Your task to perform on an android device: see creations saved in the google photos Image 0: 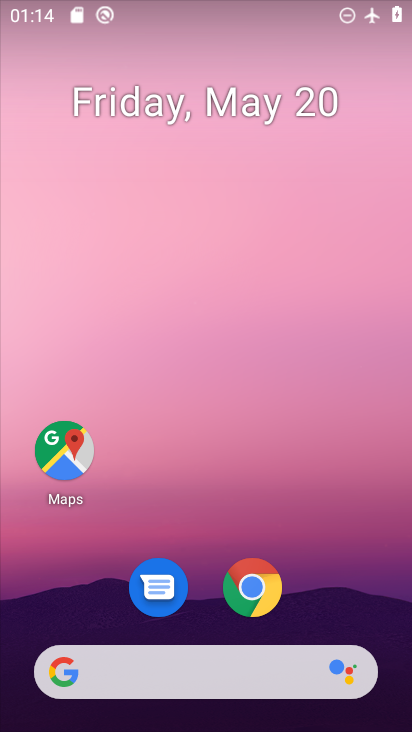
Step 0: drag from (355, 588) to (341, 136)
Your task to perform on an android device: see creations saved in the google photos Image 1: 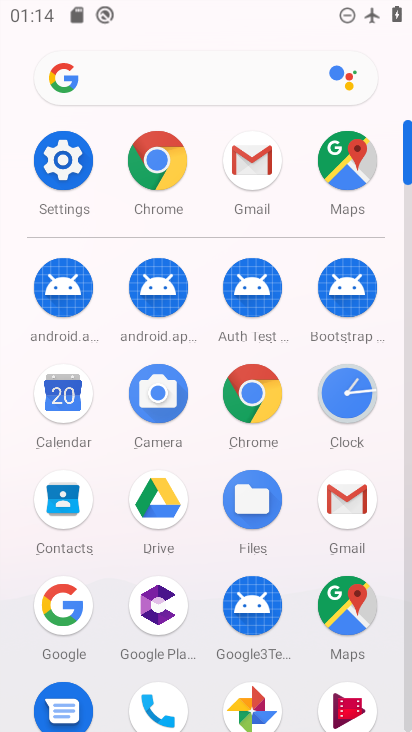
Step 1: drag from (293, 643) to (293, 461)
Your task to perform on an android device: see creations saved in the google photos Image 2: 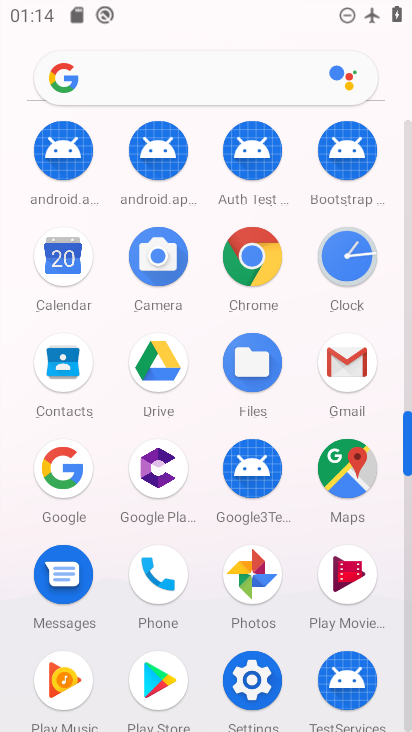
Step 2: click (267, 577)
Your task to perform on an android device: see creations saved in the google photos Image 3: 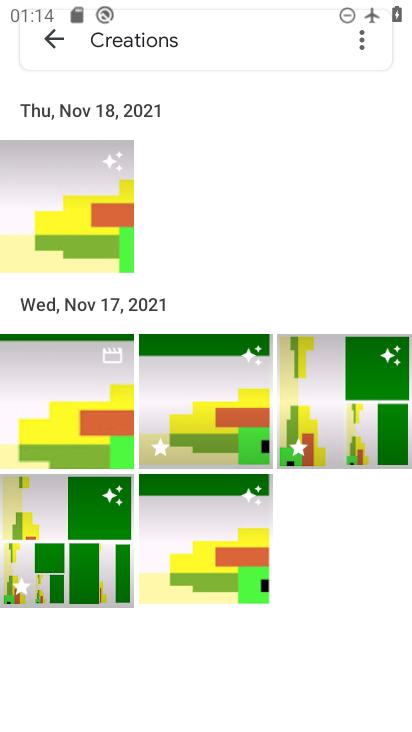
Step 3: task complete